Your task to perform on an android device: Play the new Ariana Grande video on YouTube Image 0: 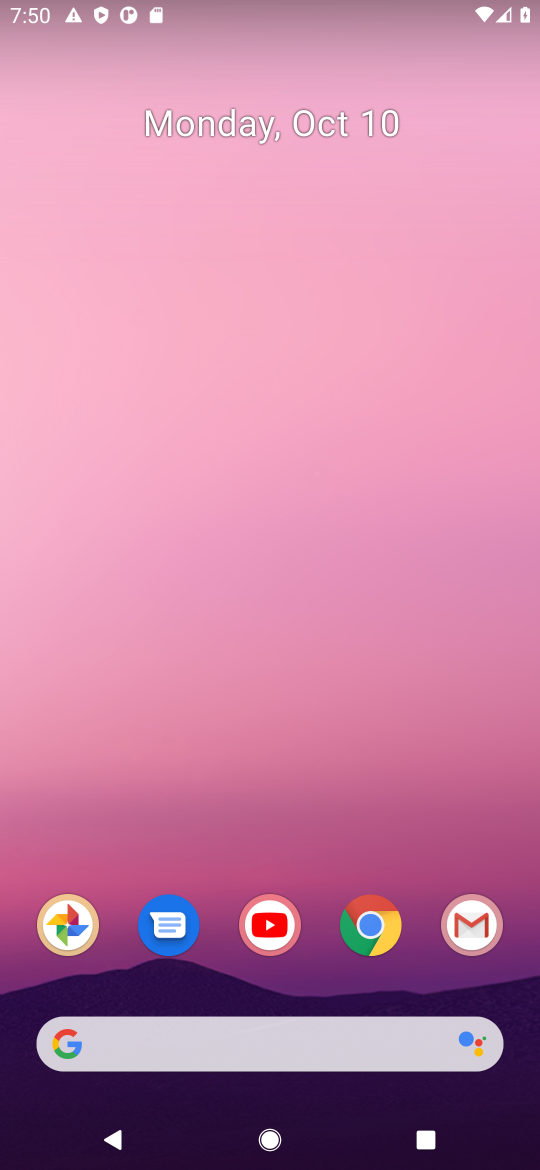
Step 0: drag from (331, 999) to (288, 203)
Your task to perform on an android device: Play the new Ariana Grande video on YouTube Image 1: 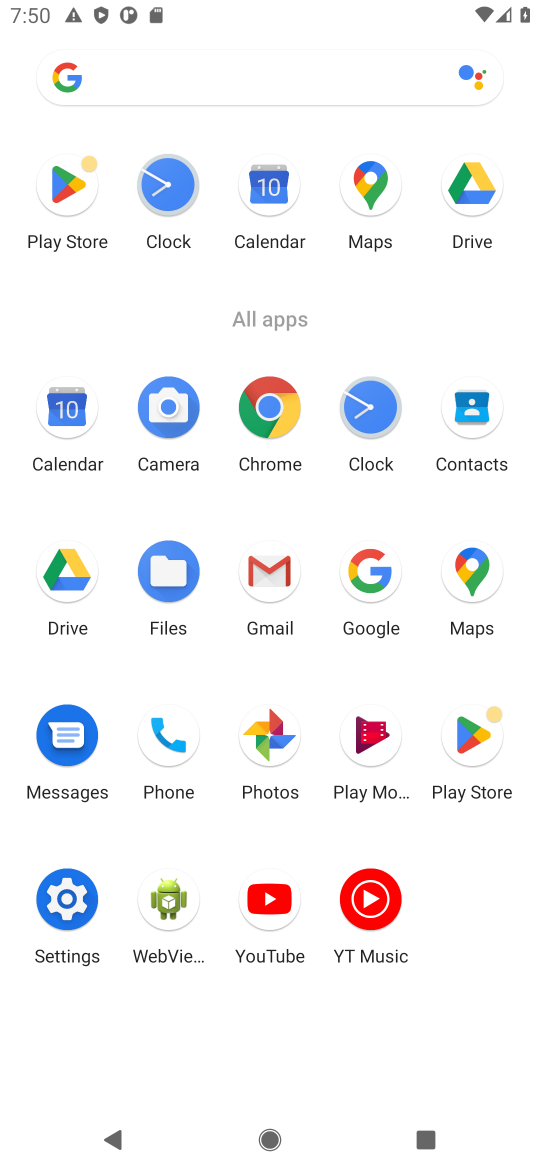
Step 1: click (258, 902)
Your task to perform on an android device: Play the new Ariana Grande video on YouTube Image 2: 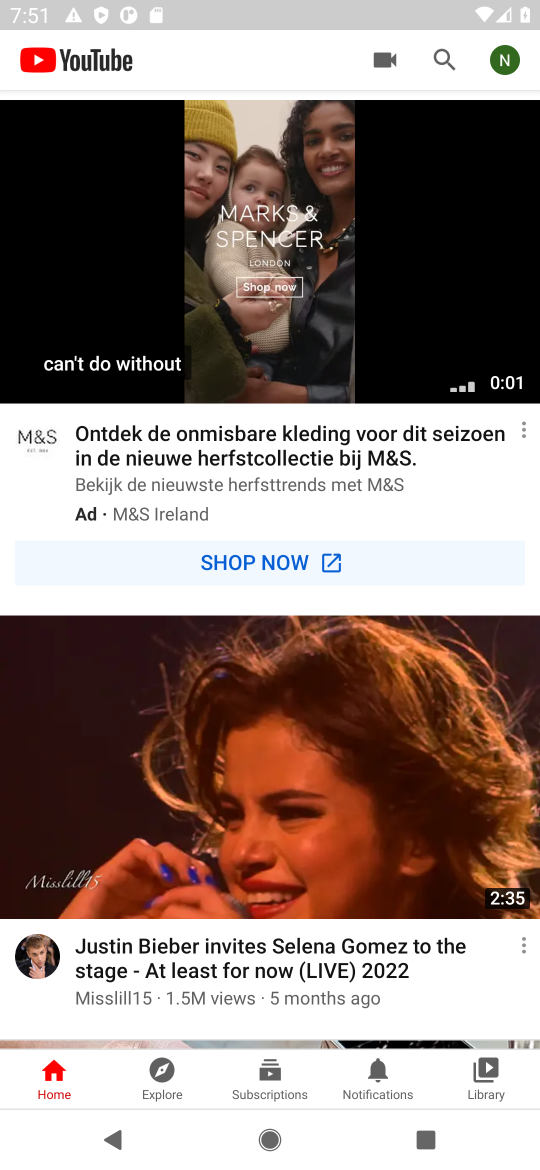
Step 2: click (435, 53)
Your task to perform on an android device: Play the new Ariana Grande video on YouTube Image 3: 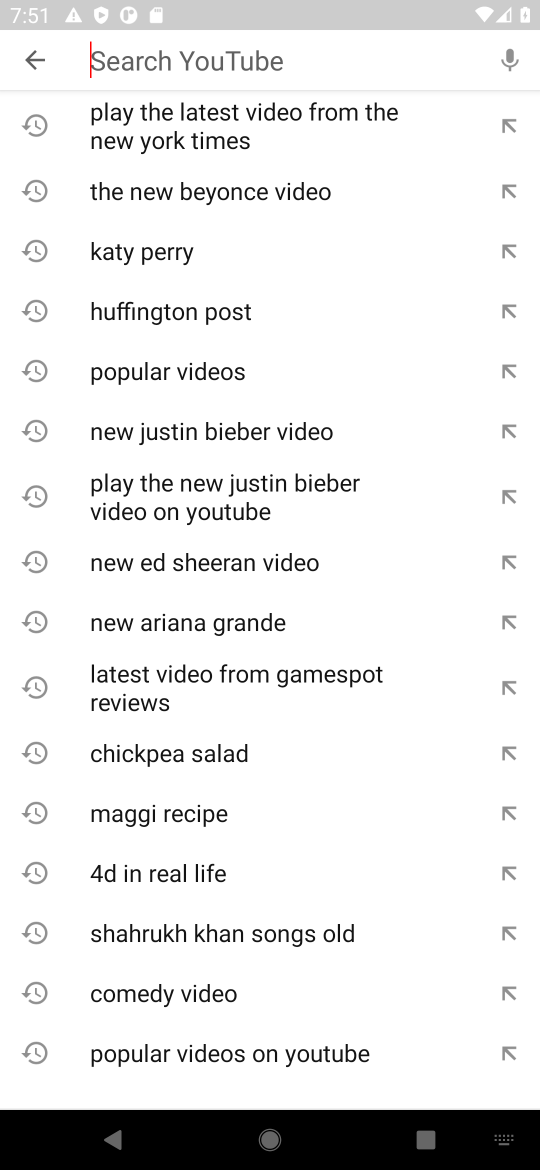
Step 3: type "new Ariana Grande "
Your task to perform on an android device: Play the new Ariana Grande video on YouTube Image 4: 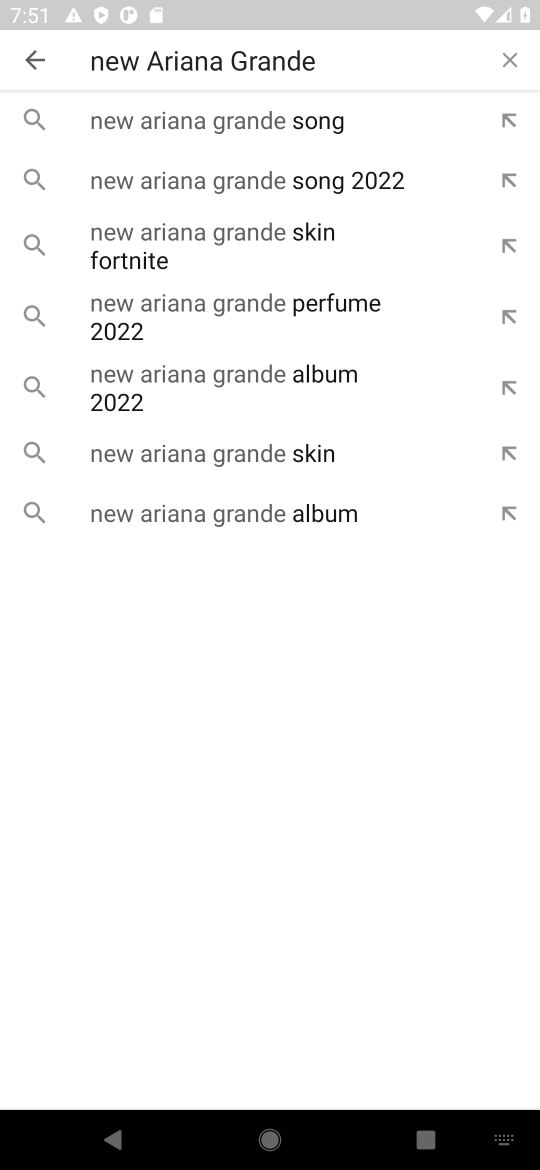
Step 4: press enter
Your task to perform on an android device: Play the new Ariana Grande video on YouTube Image 5: 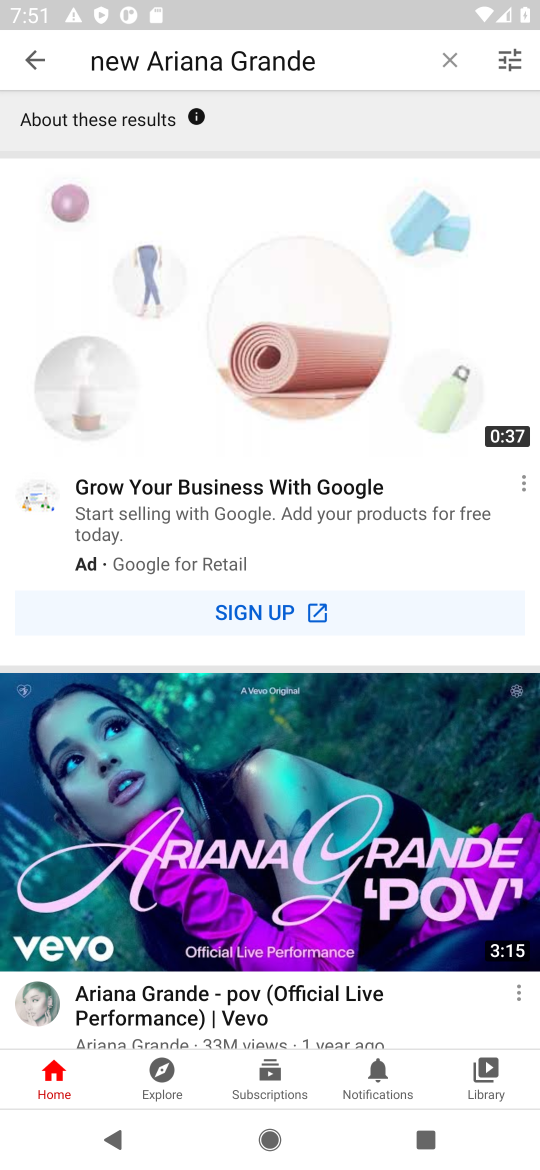
Step 5: drag from (315, 889) to (311, 656)
Your task to perform on an android device: Play the new Ariana Grande video on YouTube Image 6: 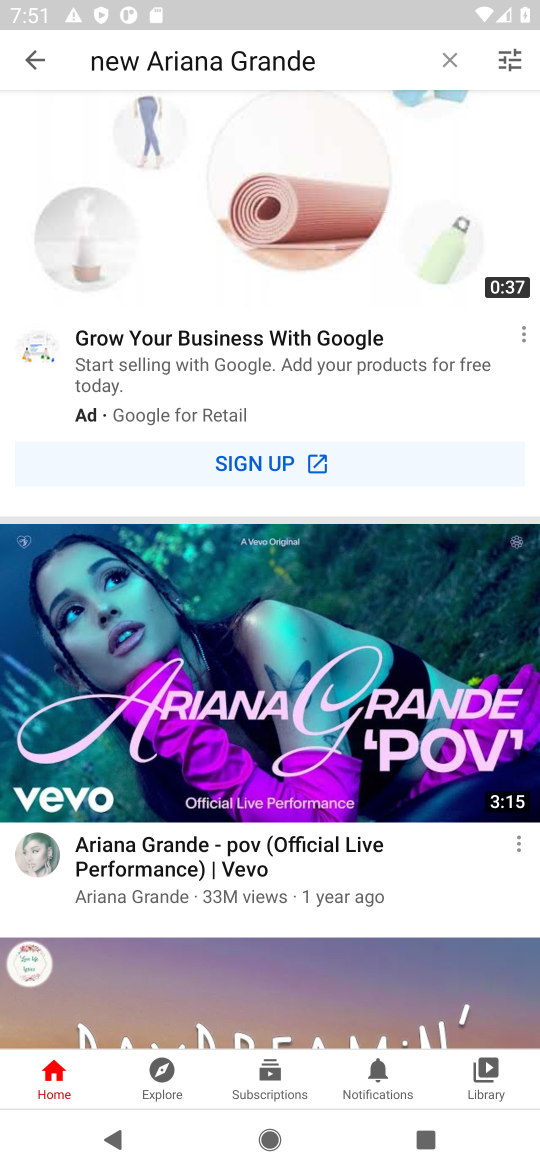
Step 6: click (159, 902)
Your task to perform on an android device: Play the new Ariana Grande video on YouTube Image 7: 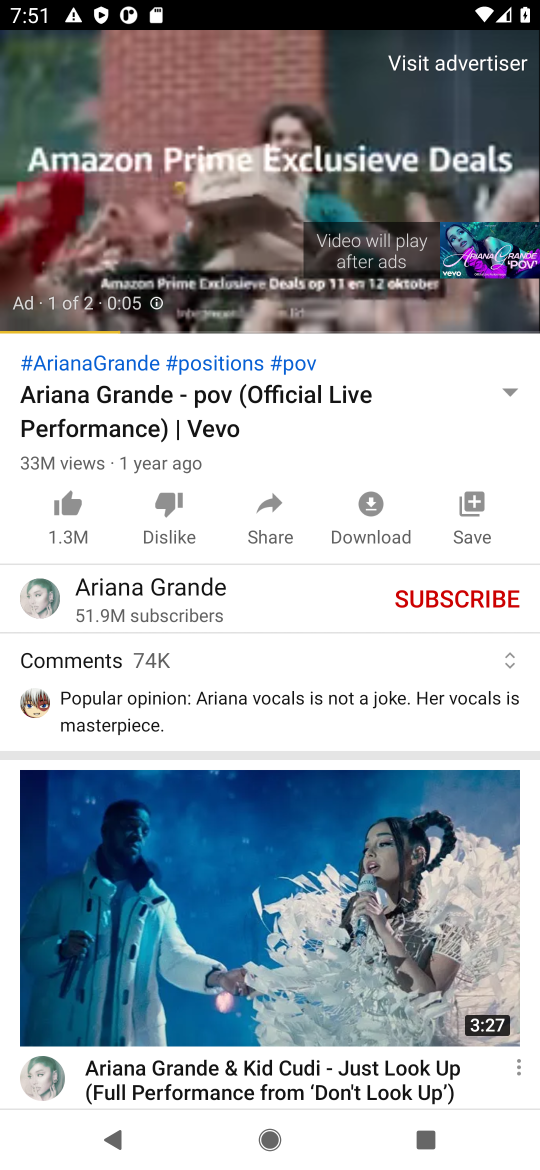
Step 7: click (257, 186)
Your task to perform on an android device: Play the new Ariana Grande video on YouTube Image 8: 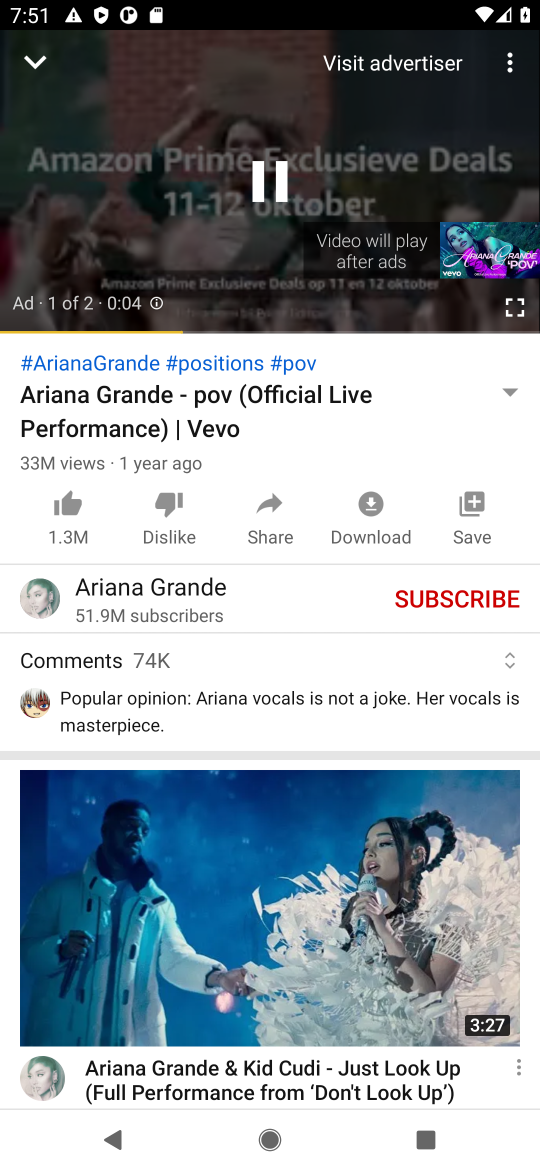
Step 8: click (22, 593)
Your task to perform on an android device: Play the new Ariana Grande video on YouTube Image 9: 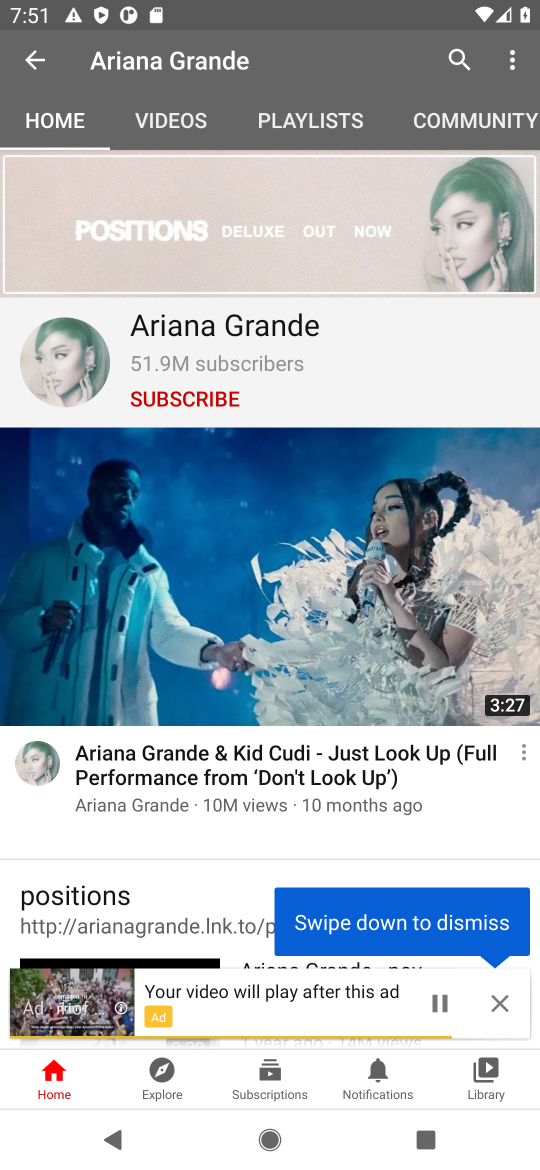
Step 9: click (166, 132)
Your task to perform on an android device: Play the new Ariana Grande video on YouTube Image 10: 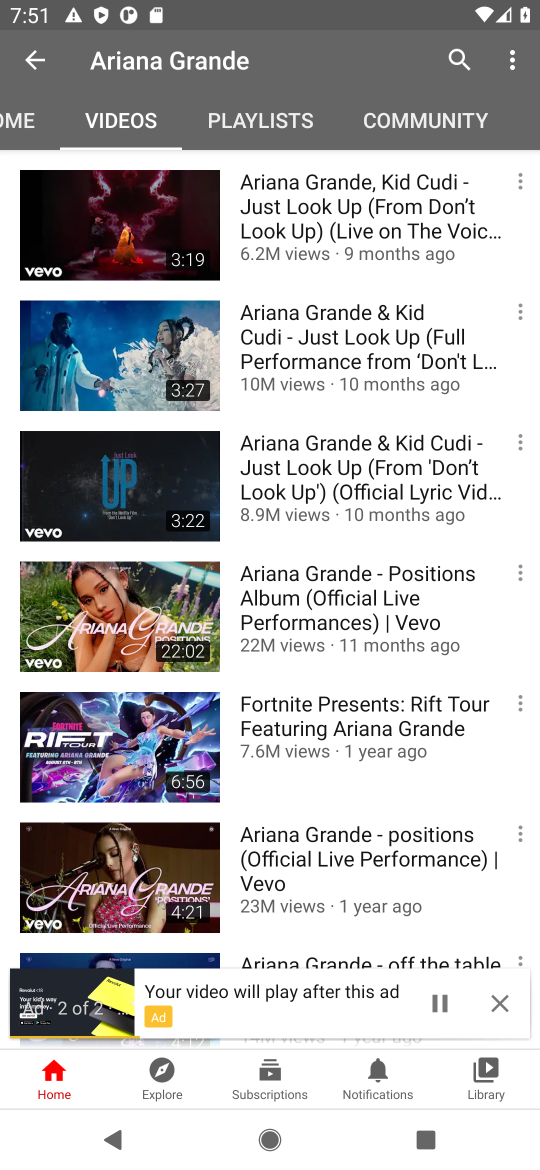
Step 10: click (147, 207)
Your task to perform on an android device: Play the new Ariana Grande video on YouTube Image 11: 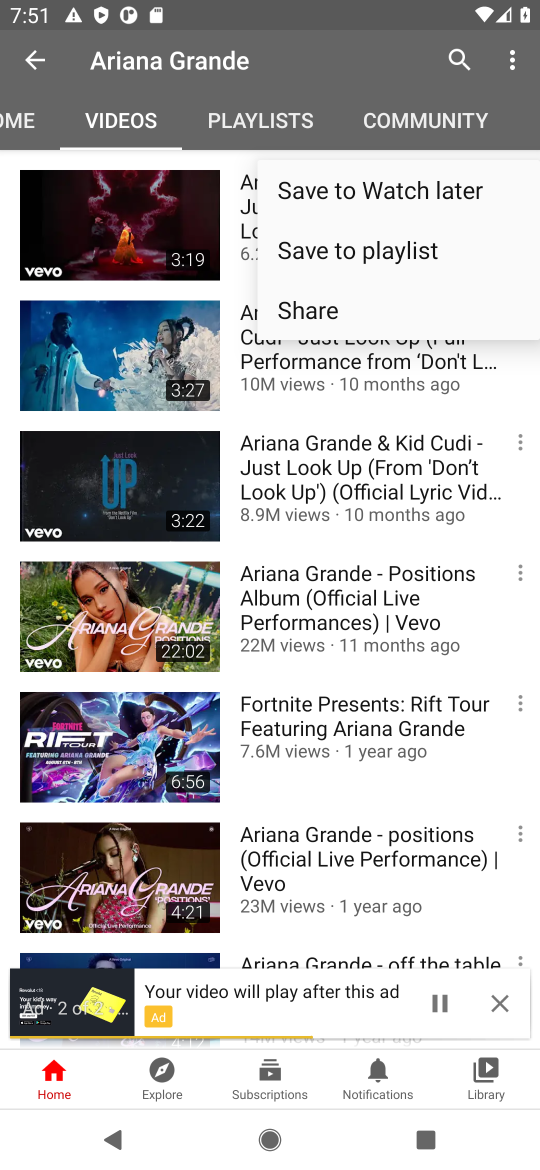
Step 11: click (147, 207)
Your task to perform on an android device: Play the new Ariana Grande video on YouTube Image 12: 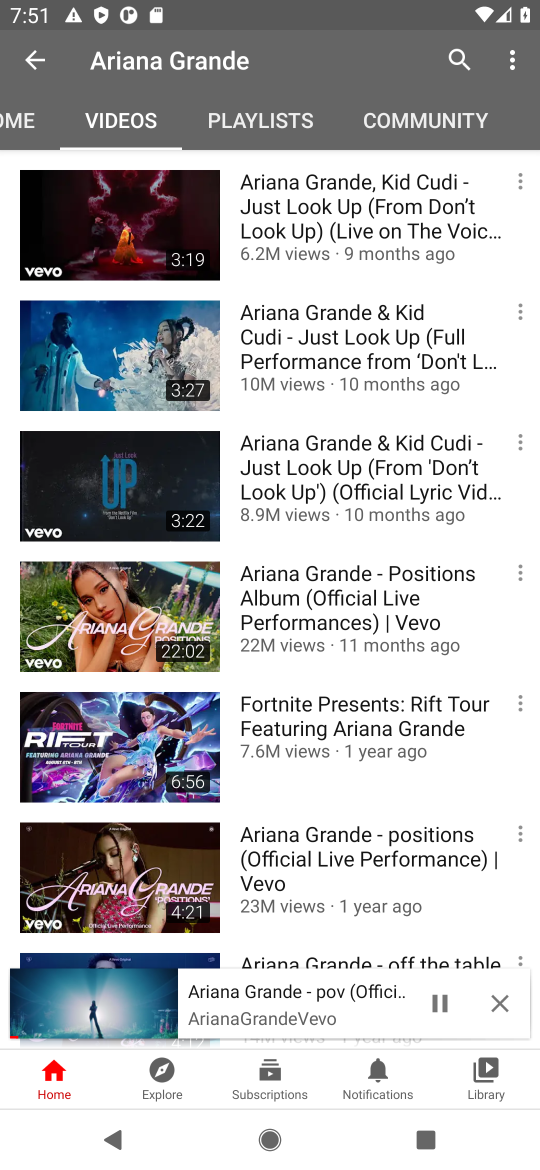
Step 12: click (118, 202)
Your task to perform on an android device: Play the new Ariana Grande video on YouTube Image 13: 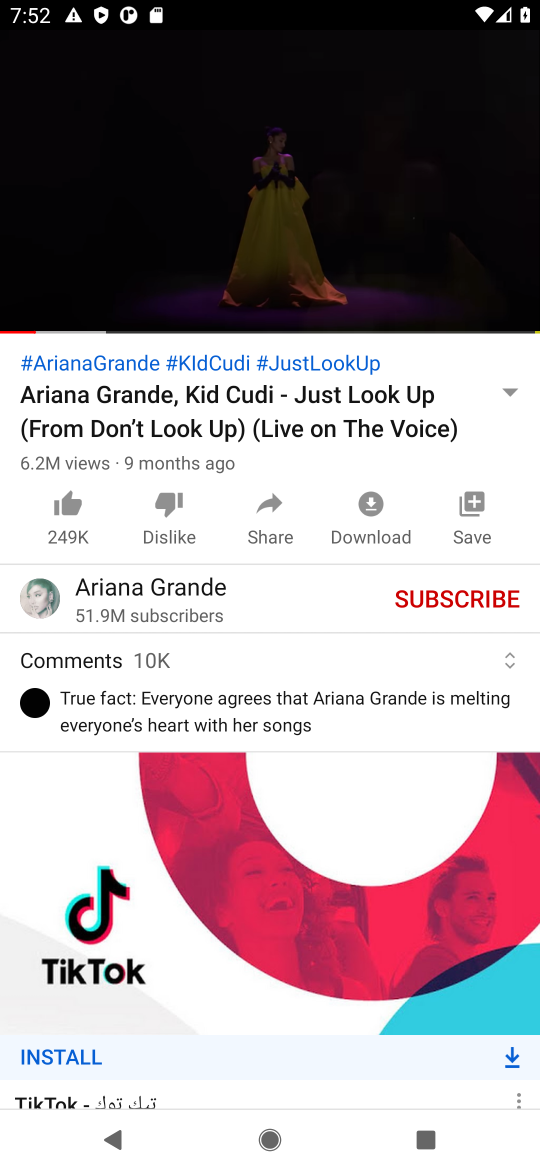
Step 13: task complete